Your task to perform on an android device: What's the weather going to be tomorrow? Image 0: 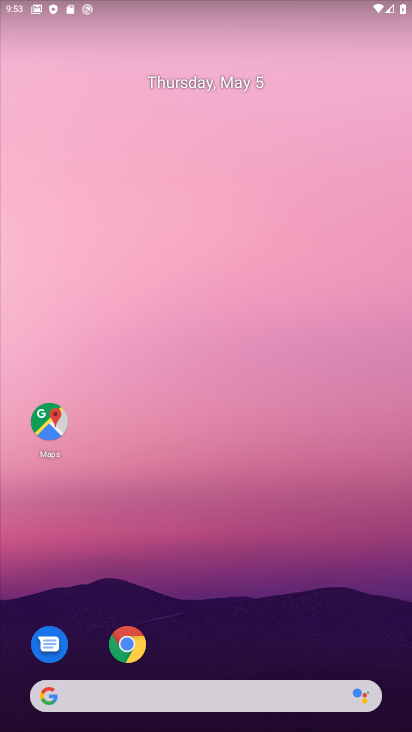
Step 0: click (205, 699)
Your task to perform on an android device: What's the weather going to be tomorrow? Image 1: 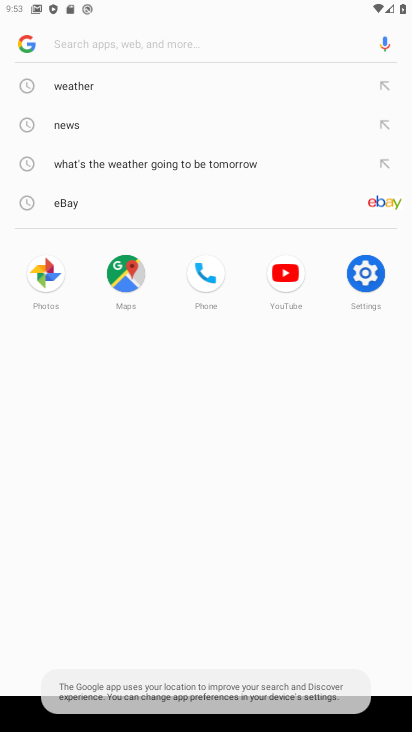
Step 1: click (49, 79)
Your task to perform on an android device: What's the weather going to be tomorrow? Image 2: 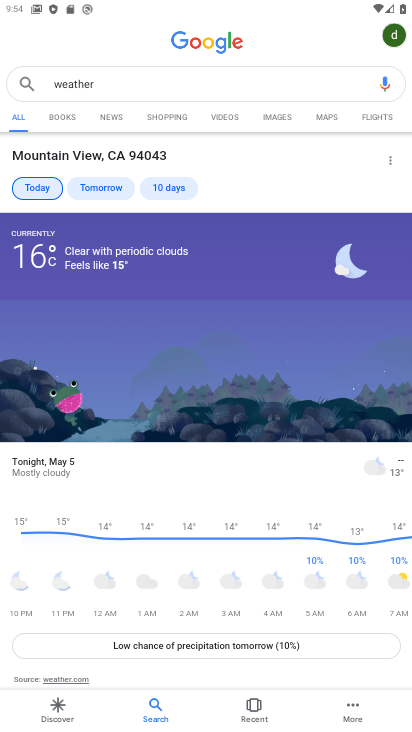
Step 2: click (89, 188)
Your task to perform on an android device: What's the weather going to be tomorrow? Image 3: 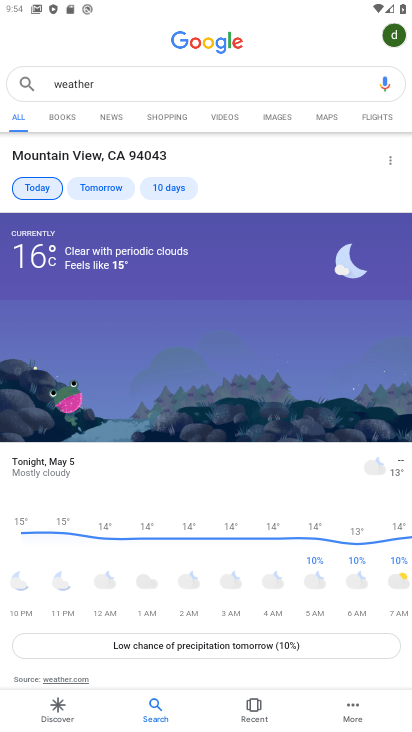
Step 3: click (89, 188)
Your task to perform on an android device: What's the weather going to be tomorrow? Image 4: 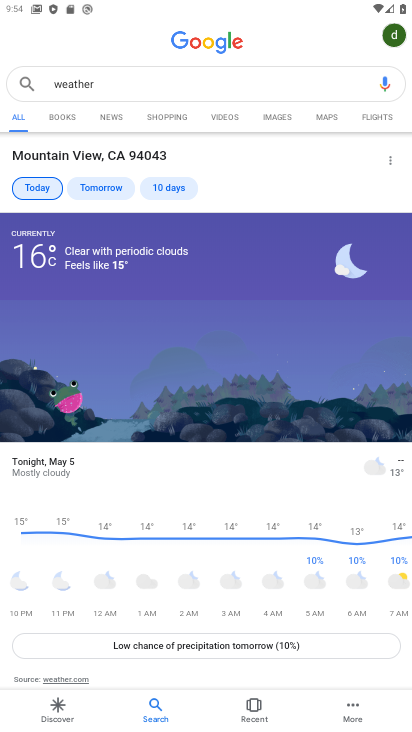
Step 4: click (108, 186)
Your task to perform on an android device: What's the weather going to be tomorrow? Image 5: 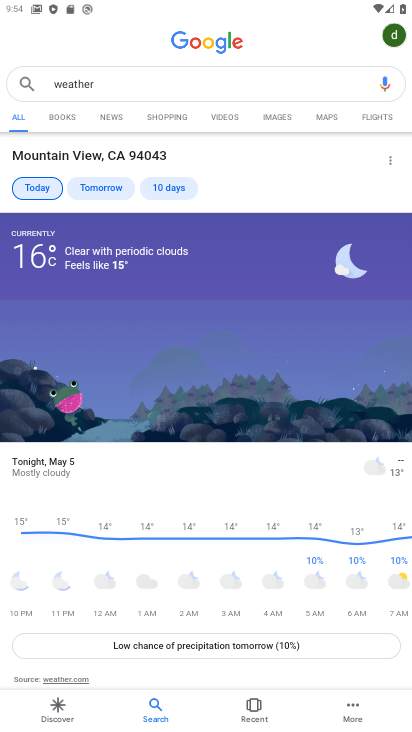
Step 5: click (116, 190)
Your task to perform on an android device: What's the weather going to be tomorrow? Image 6: 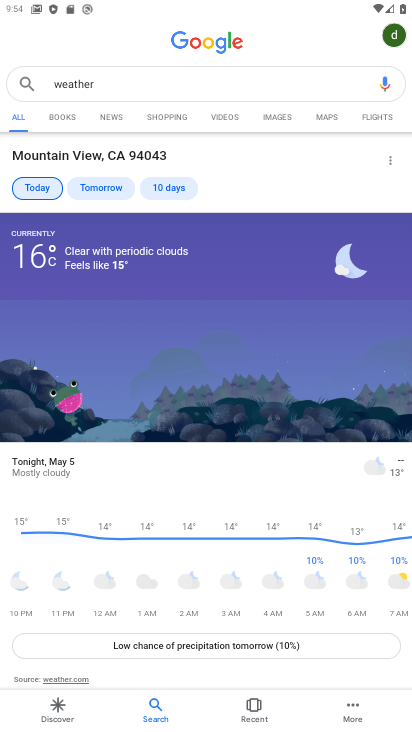
Step 6: click (153, 189)
Your task to perform on an android device: What's the weather going to be tomorrow? Image 7: 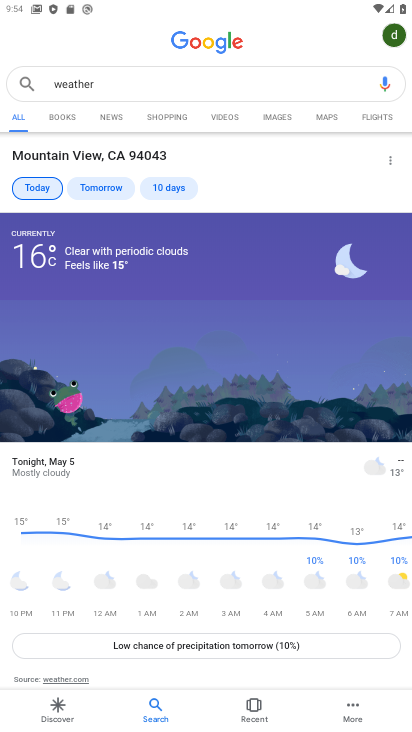
Step 7: click (128, 191)
Your task to perform on an android device: What's the weather going to be tomorrow? Image 8: 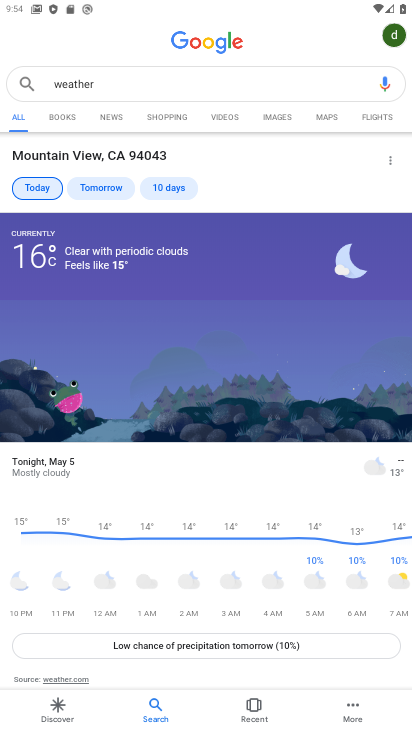
Step 8: click (128, 191)
Your task to perform on an android device: What's the weather going to be tomorrow? Image 9: 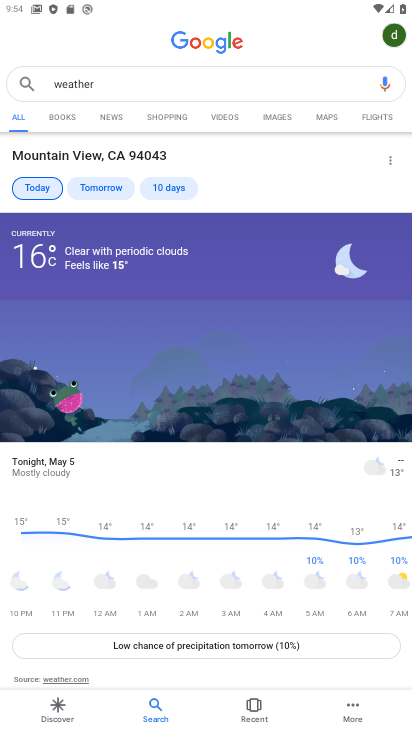
Step 9: click (128, 191)
Your task to perform on an android device: What's the weather going to be tomorrow? Image 10: 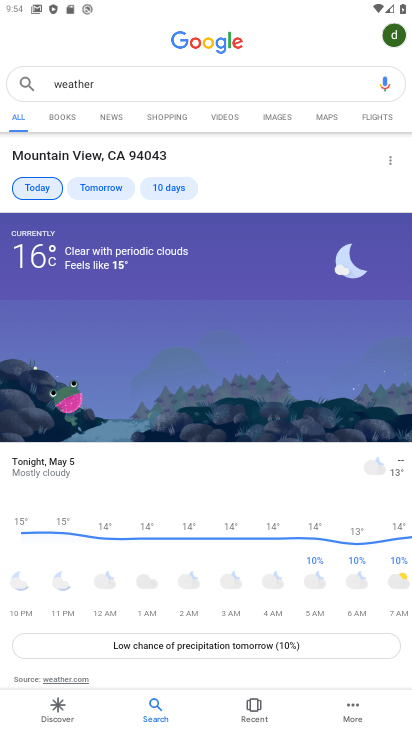
Step 10: click (128, 191)
Your task to perform on an android device: What's the weather going to be tomorrow? Image 11: 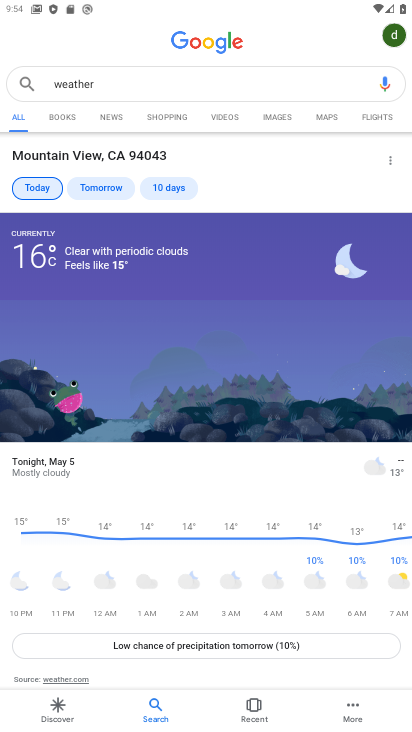
Step 11: click (93, 193)
Your task to perform on an android device: What's the weather going to be tomorrow? Image 12: 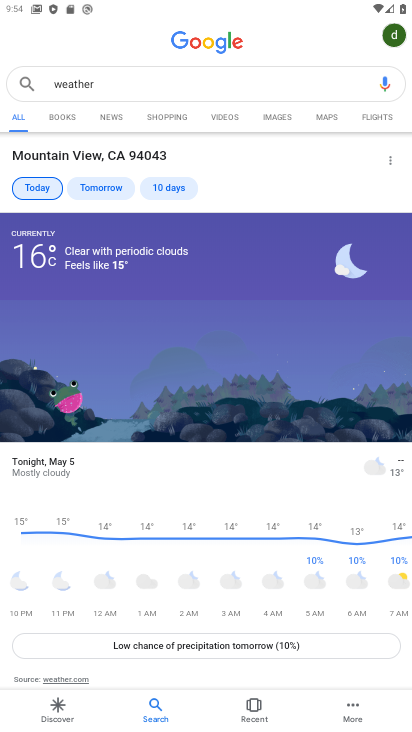
Step 12: click (387, 158)
Your task to perform on an android device: What's the weather going to be tomorrow? Image 13: 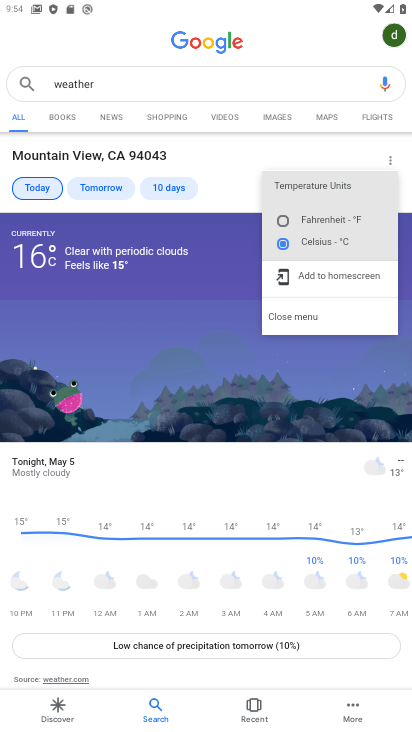
Step 13: click (387, 158)
Your task to perform on an android device: What's the weather going to be tomorrow? Image 14: 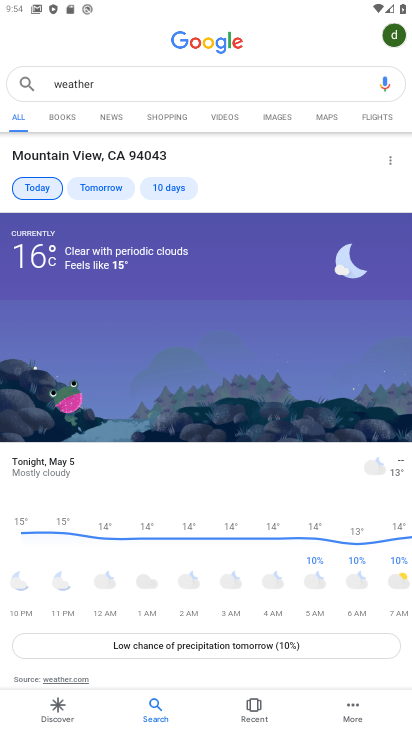
Step 14: click (387, 158)
Your task to perform on an android device: What's the weather going to be tomorrow? Image 15: 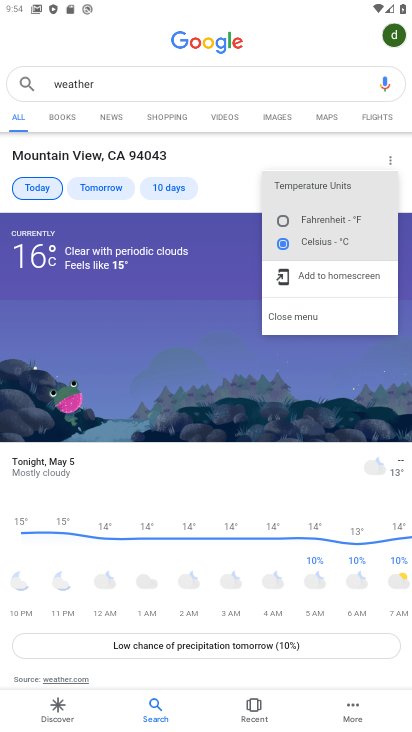
Step 15: click (387, 158)
Your task to perform on an android device: What's the weather going to be tomorrow? Image 16: 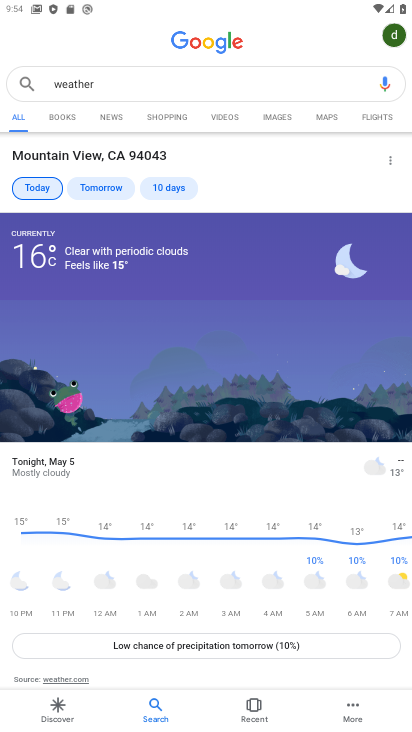
Step 16: click (109, 181)
Your task to perform on an android device: What's the weather going to be tomorrow? Image 17: 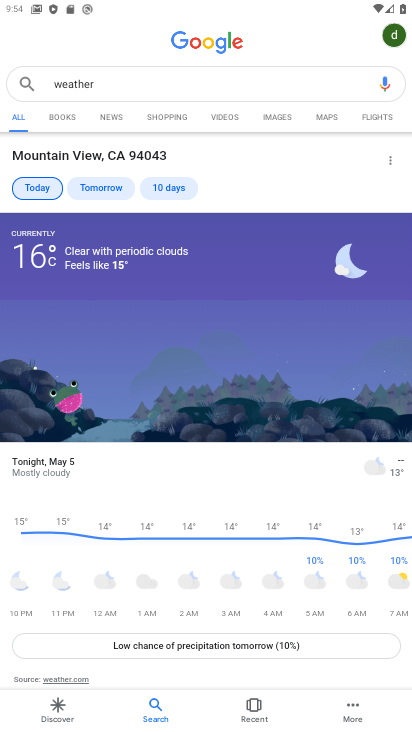
Step 17: click (109, 181)
Your task to perform on an android device: What's the weather going to be tomorrow? Image 18: 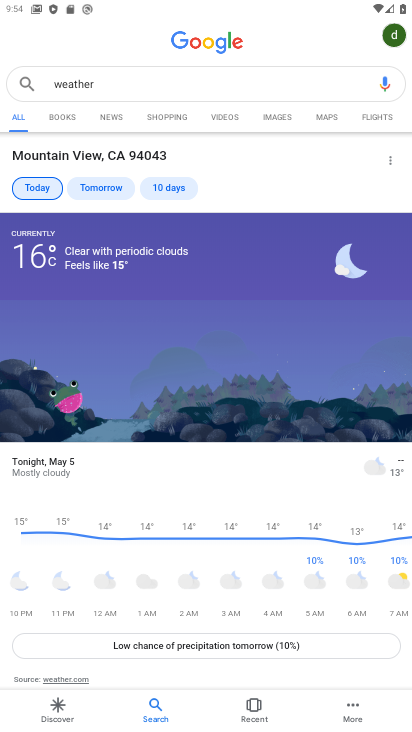
Step 18: click (167, 655)
Your task to perform on an android device: What's the weather going to be tomorrow? Image 19: 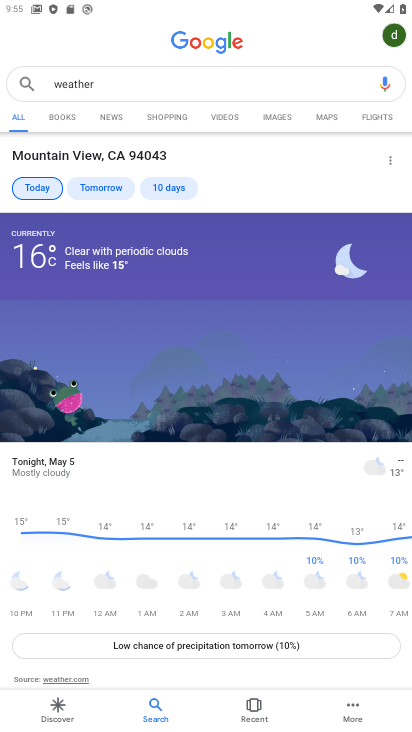
Step 19: task complete